Your task to perform on an android device: Clear the cart on costco.com. Search for lg ultragear on costco.com, select the first entry, add it to the cart, then select checkout. Image 0: 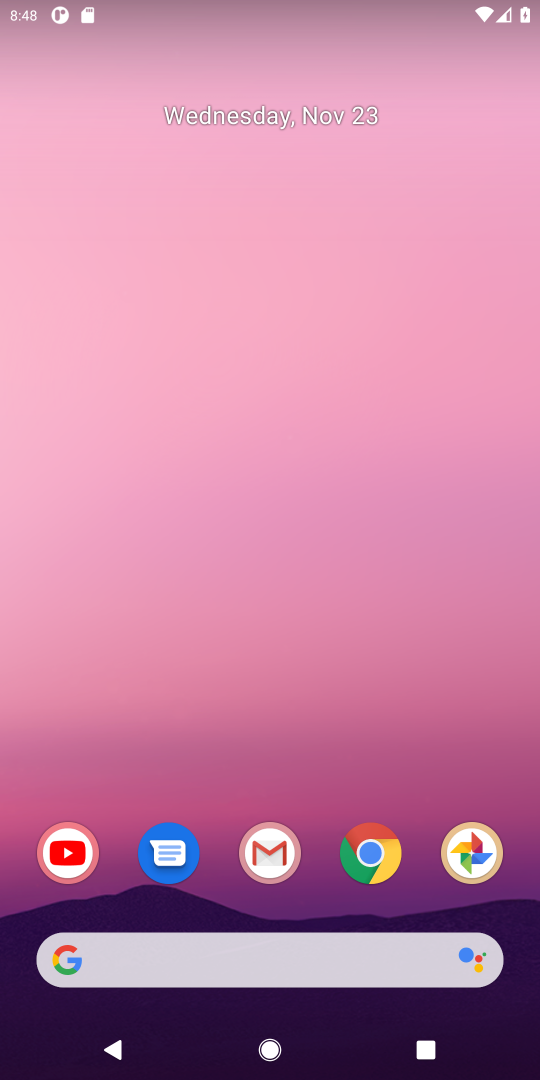
Step 0: click (375, 854)
Your task to perform on an android device: Clear the cart on costco.com. Search for lg ultragear on costco.com, select the first entry, add it to the cart, then select checkout. Image 1: 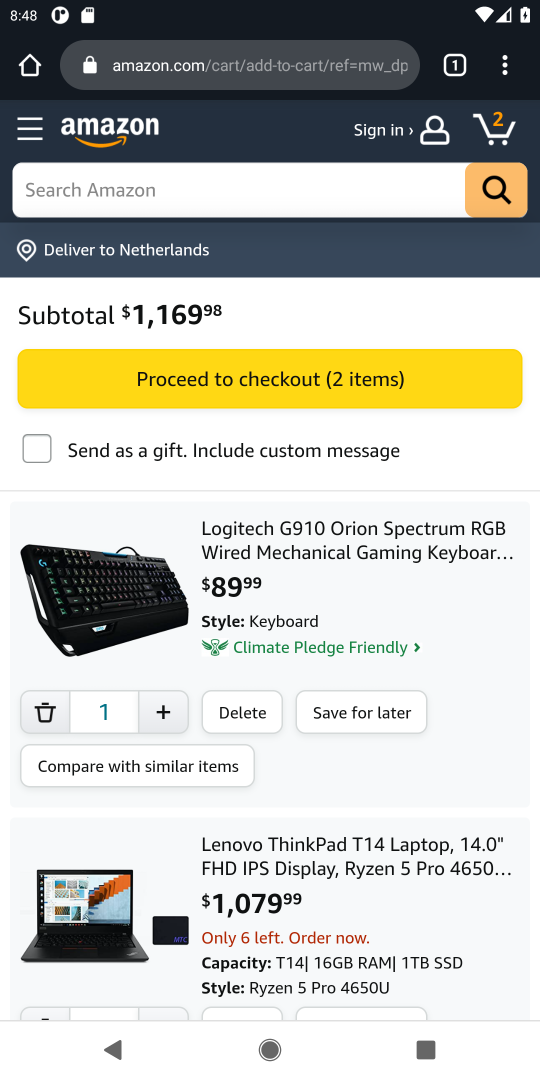
Step 1: click (221, 67)
Your task to perform on an android device: Clear the cart on costco.com. Search for lg ultragear on costco.com, select the first entry, add it to the cart, then select checkout. Image 2: 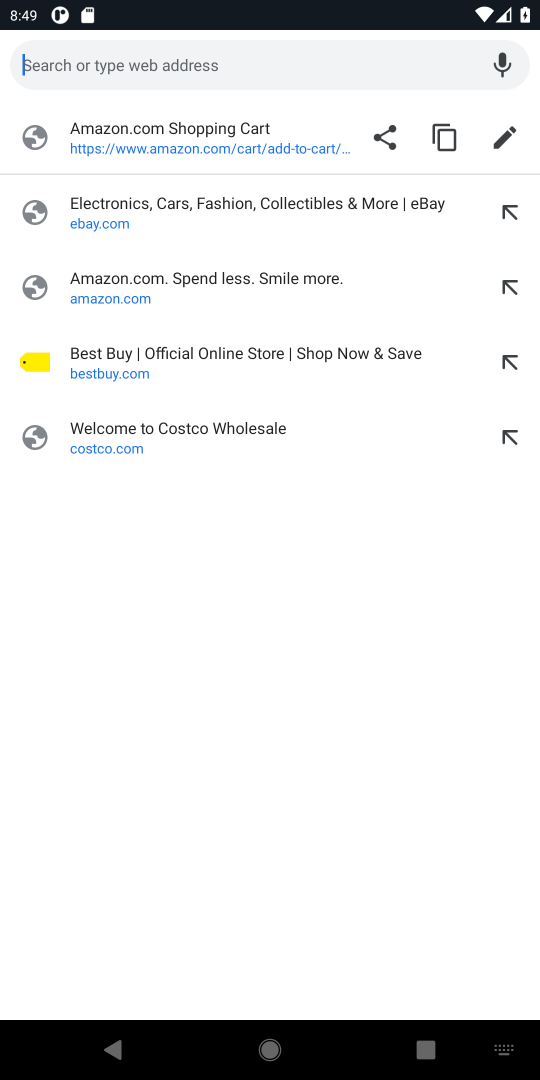
Step 2: click (94, 451)
Your task to perform on an android device: Clear the cart on costco.com. Search for lg ultragear on costco.com, select the first entry, add it to the cart, then select checkout. Image 3: 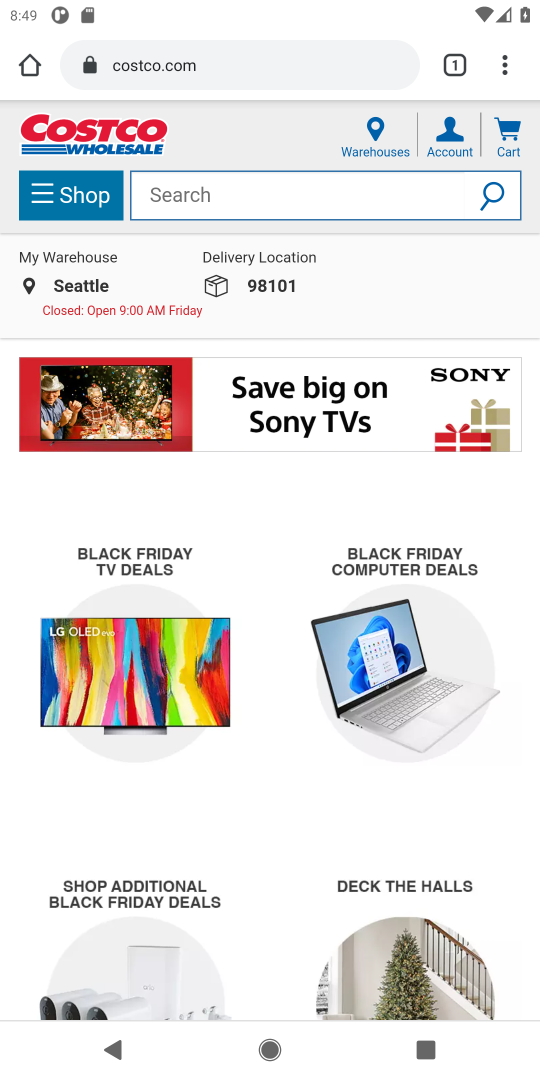
Step 3: click (516, 133)
Your task to perform on an android device: Clear the cart on costco.com. Search for lg ultragear on costco.com, select the first entry, add it to the cart, then select checkout. Image 4: 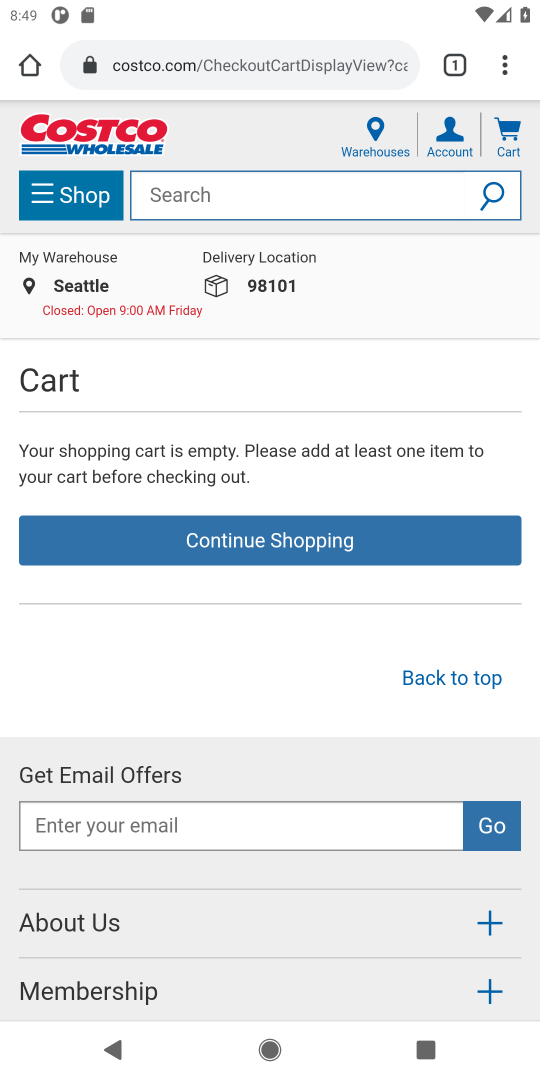
Step 4: click (177, 201)
Your task to perform on an android device: Clear the cart on costco.com. Search for lg ultragear on costco.com, select the first entry, add it to the cart, then select checkout. Image 5: 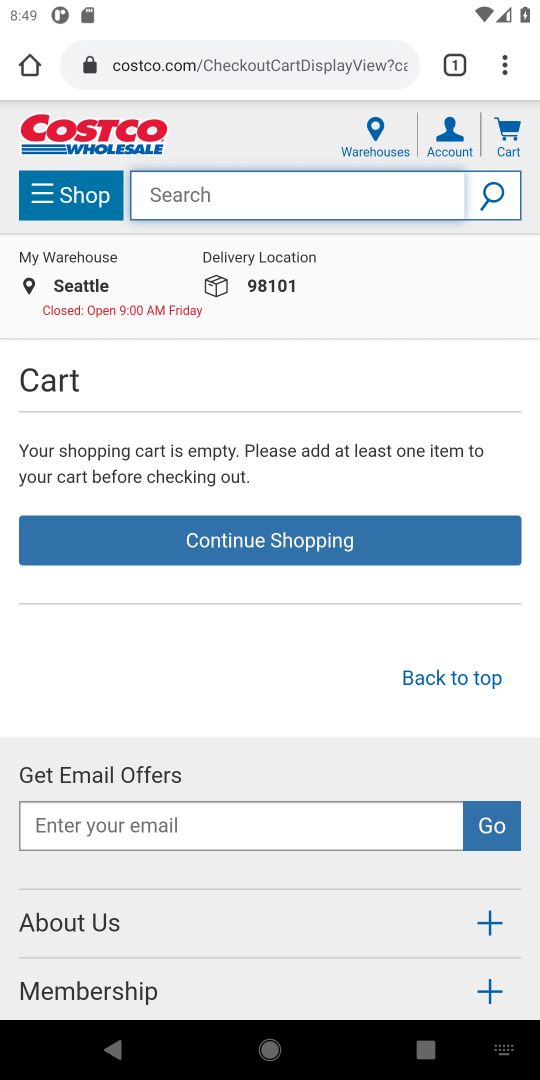
Step 5: type "lg ultragear"
Your task to perform on an android device: Clear the cart on costco.com. Search for lg ultragear on costco.com, select the first entry, add it to the cart, then select checkout. Image 6: 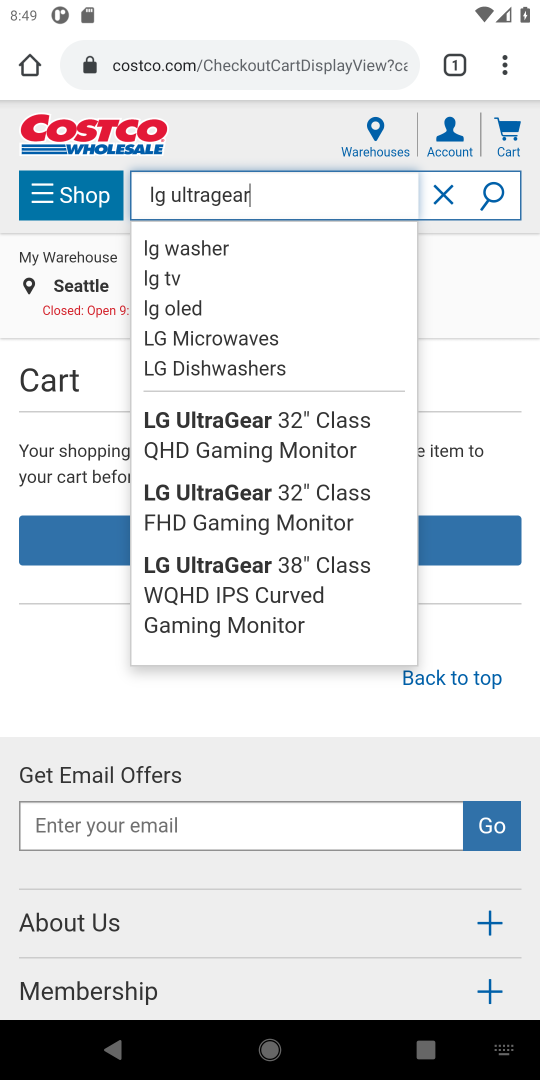
Step 6: click (498, 205)
Your task to perform on an android device: Clear the cart on costco.com. Search for lg ultragear on costco.com, select the first entry, add it to the cart, then select checkout. Image 7: 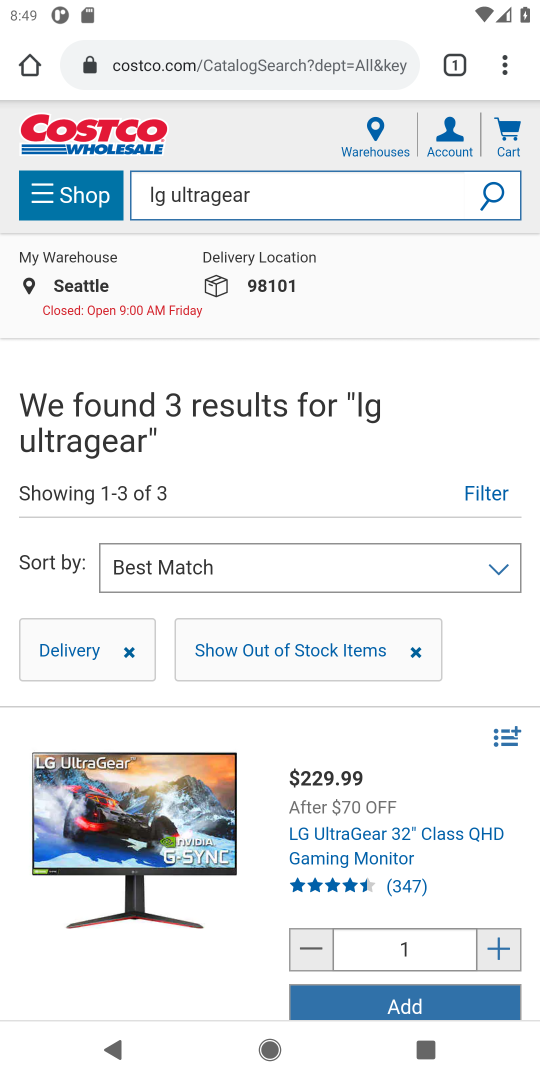
Step 7: drag from (114, 802) to (140, 515)
Your task to perform on an android device: Clear the cart on costco.com. Search for lg ultragear on costco.com, select the first entry, add it to the cart, then select checkout. Image 8: 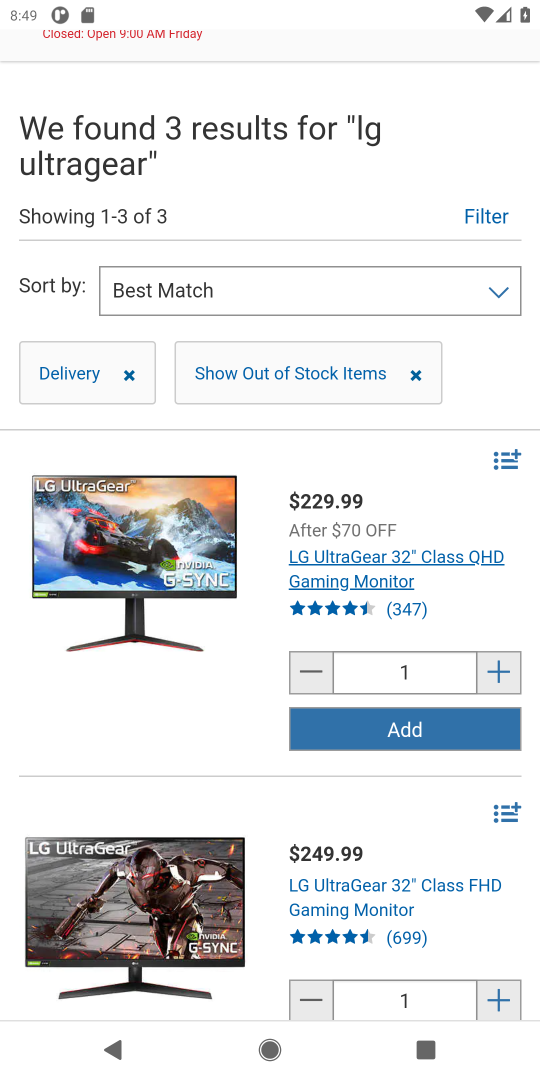
Step 8: click (388, 737)
Your task to perform on an android device: Clear the cart on costco.com. Search for lg ultragear on costco.com, select the first entry, add it to the cart, then select checkout. Image 9: 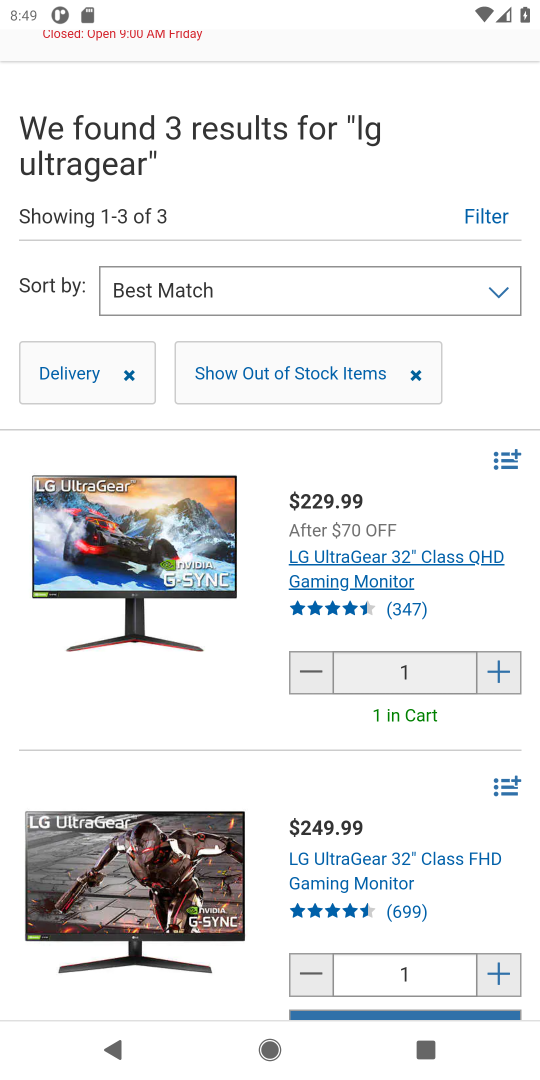
Step 9: drag from (114, 504) to (138, 783)
Your task to perform on an android device: Clear the cart on costco.com. Search for lg ultragear on costco.com, select the first entry, add it to the cart, then select checkout. Image 10: 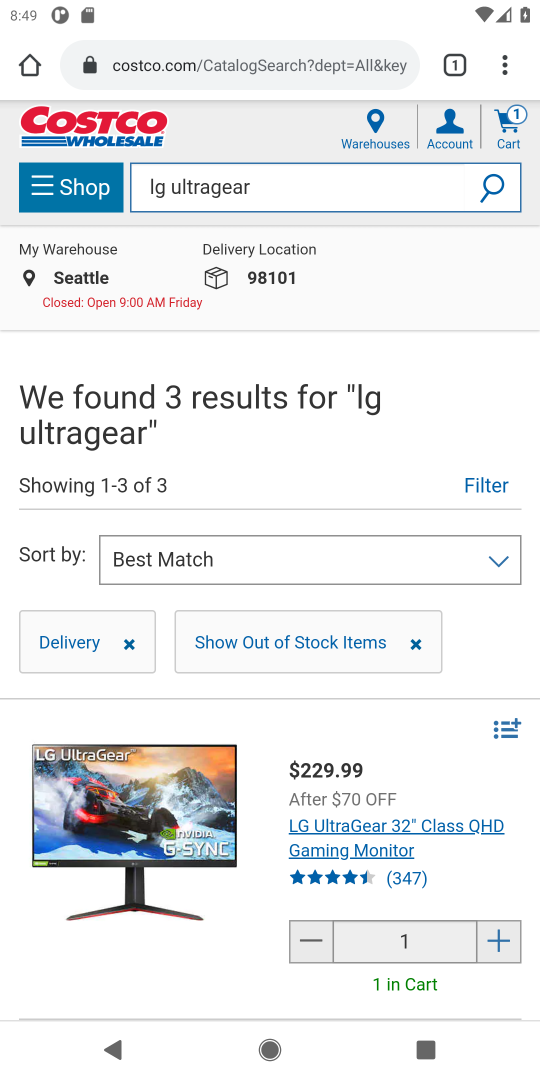
Step 10: click (506, 121)
Your task to perform on an android device: Clear the cart on costco.com. Search for lg ultragear on costco.com, select the first entry, add it to the cart, then select checkout. Image 11: 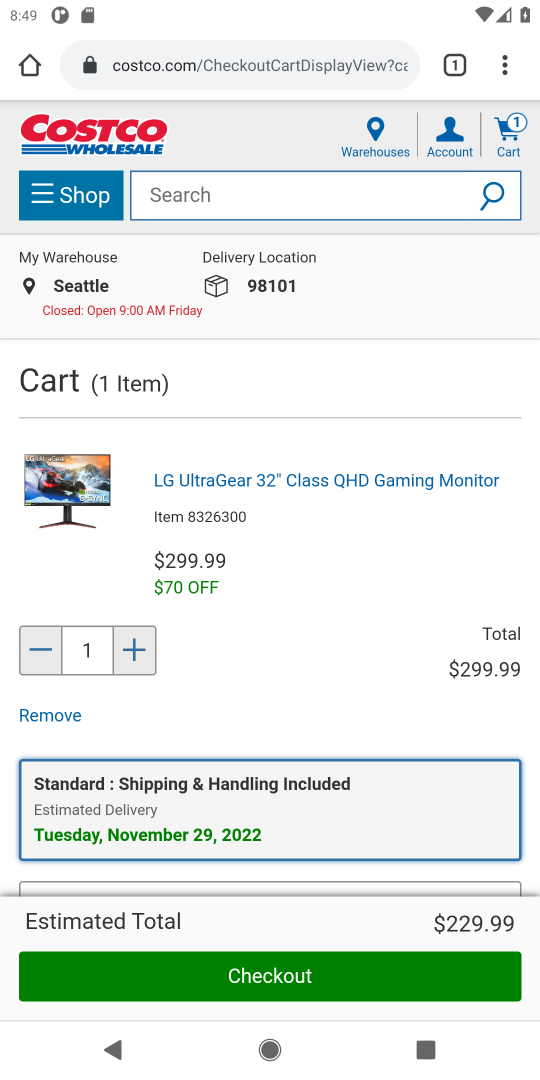
Step 11: click (215, 990)
Your task to perform on an android device: Clear the cart on costco.com. Search for lg ultragear on costco.com, select the first entry, add it to the cart, then select checkout. Image 12: 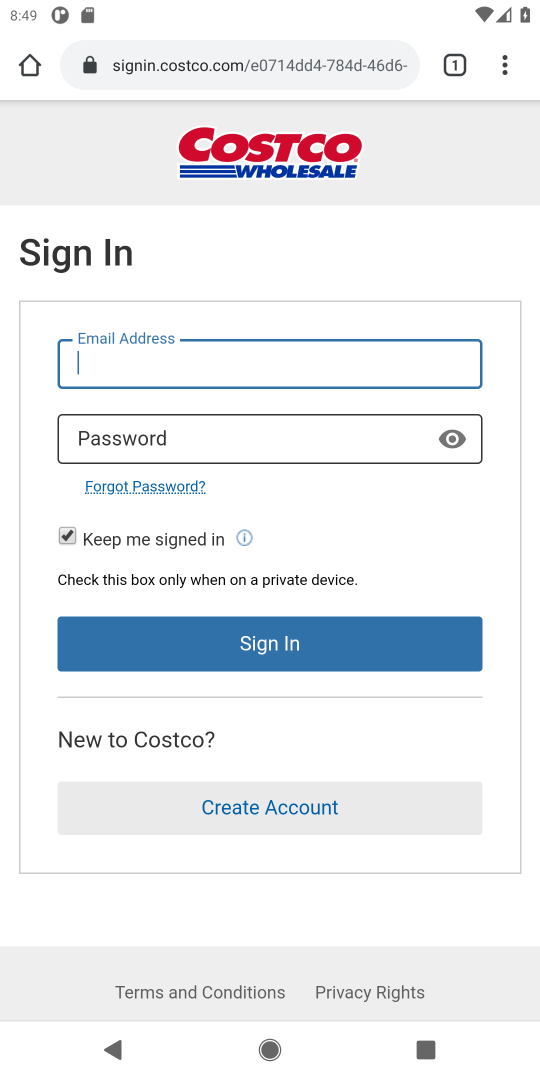
Step 12: task complete